Your task to perform on an android device: Go to sound settings Image 0: 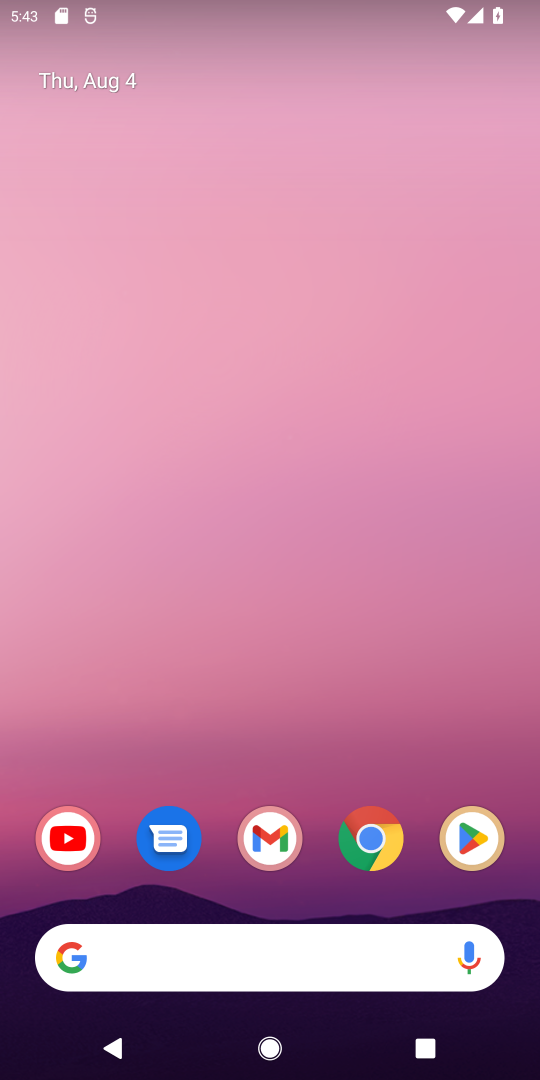
Step 0: press home button
Your task to perform on an android device: Go to sound settings Image 1: 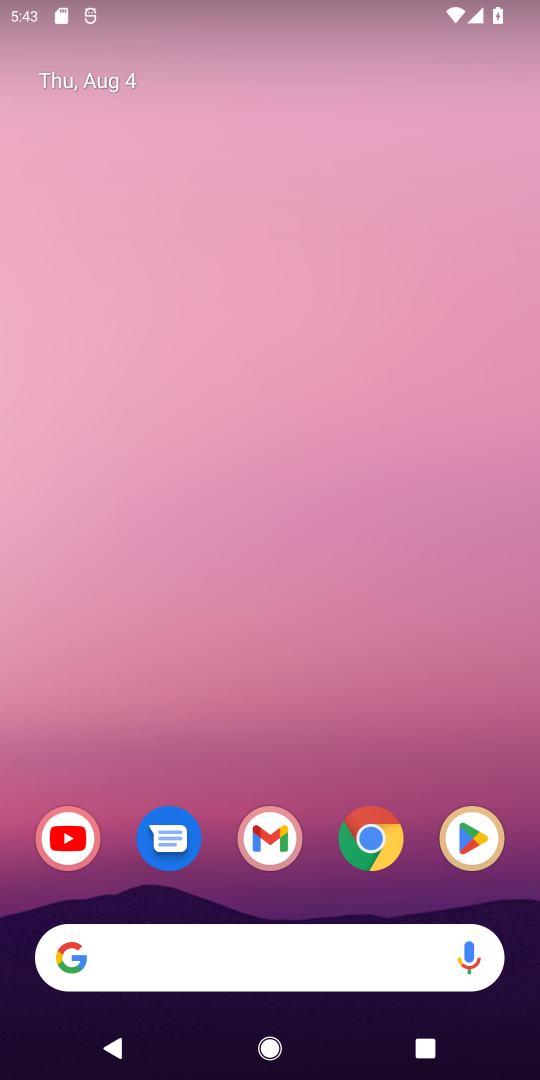
Step 1: drag from (308, 558) to (539, 761)
Your task to perform on an android device: Go to sound settings Image 2: 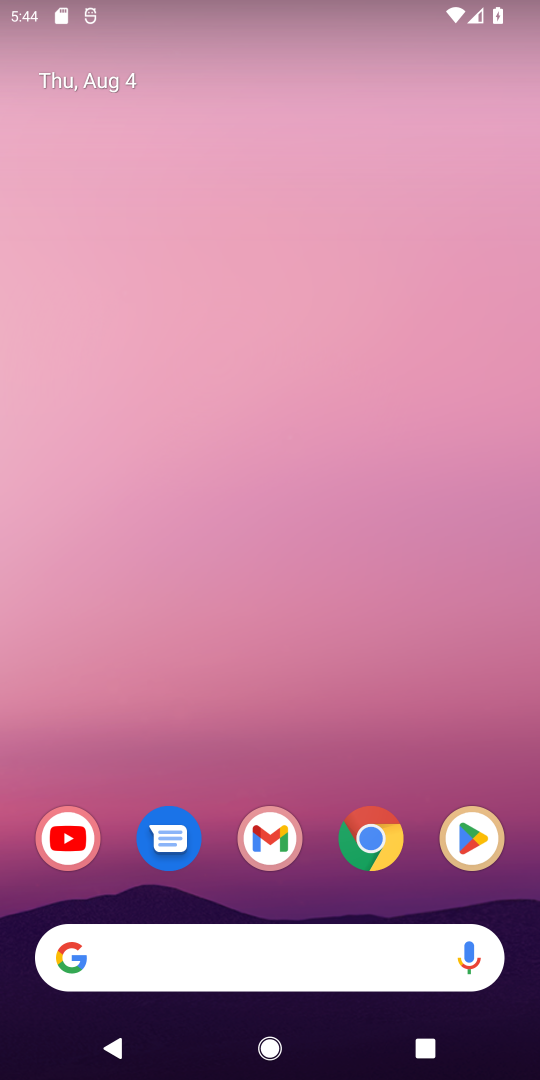
Step 2: click (481, 728)
Your task to perform on an android device: Go to sound settings Image 3: 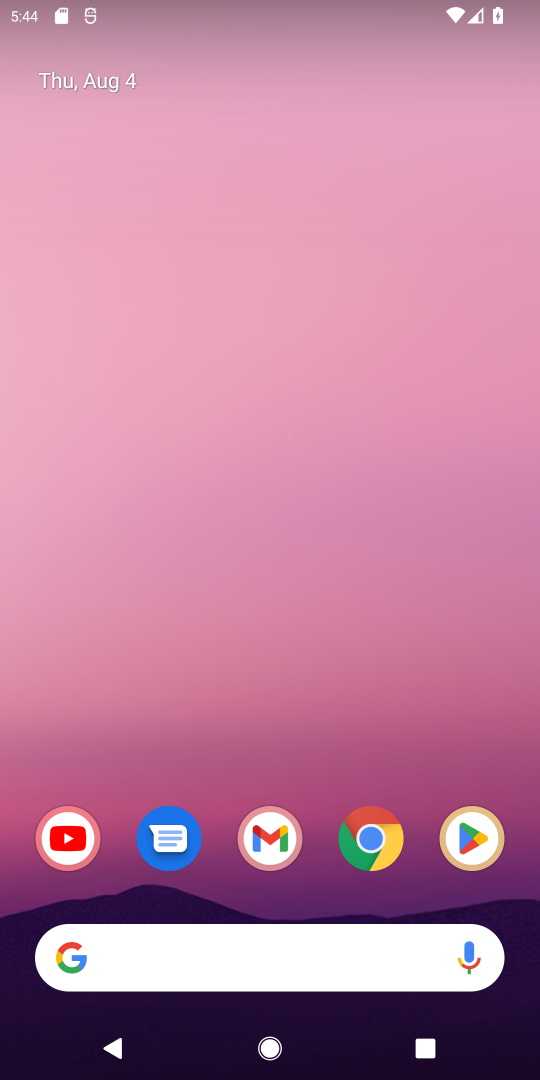
Step 3: drag from (424, 769) to (379, 17)
Your task to perform on an android device: Go to sound settings Image 4: 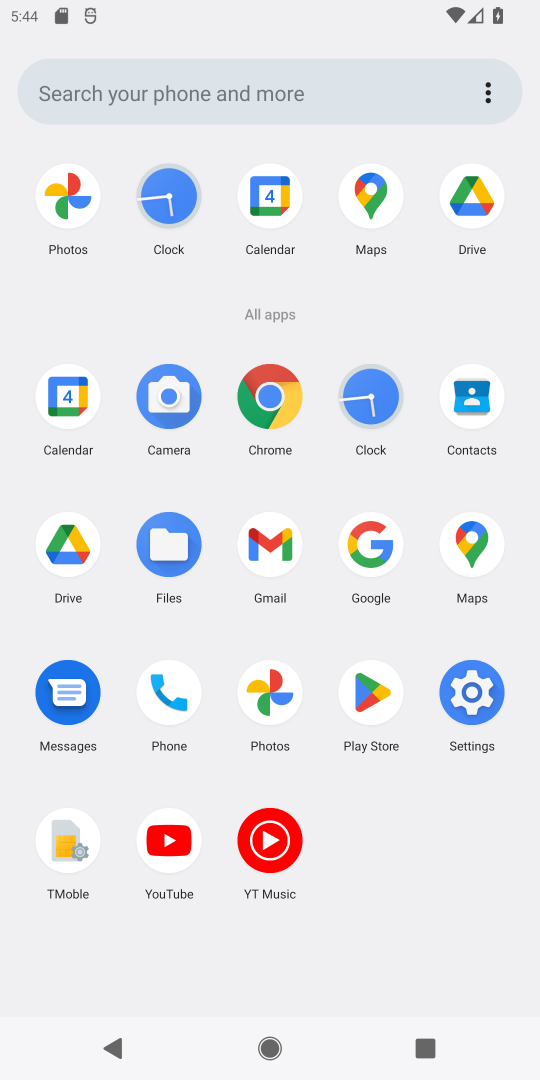
Step 4: click (478, 704)
Your task to perform on an android device: Go to sound settings Image 5: 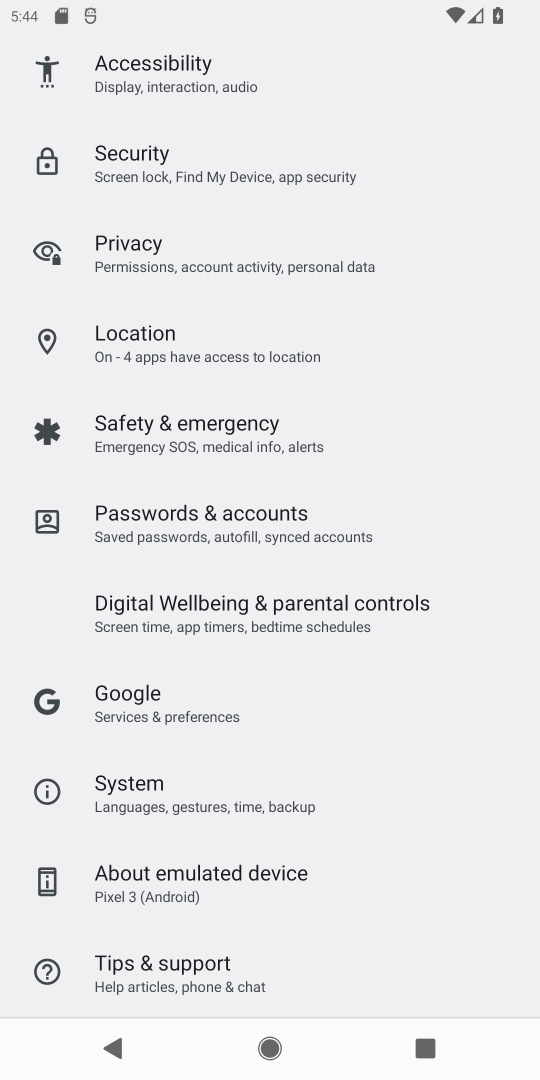
Step 5: drag from (252, 143) to (296, 694)
Your task to perform on an android device: Go to sound settings Image 6: 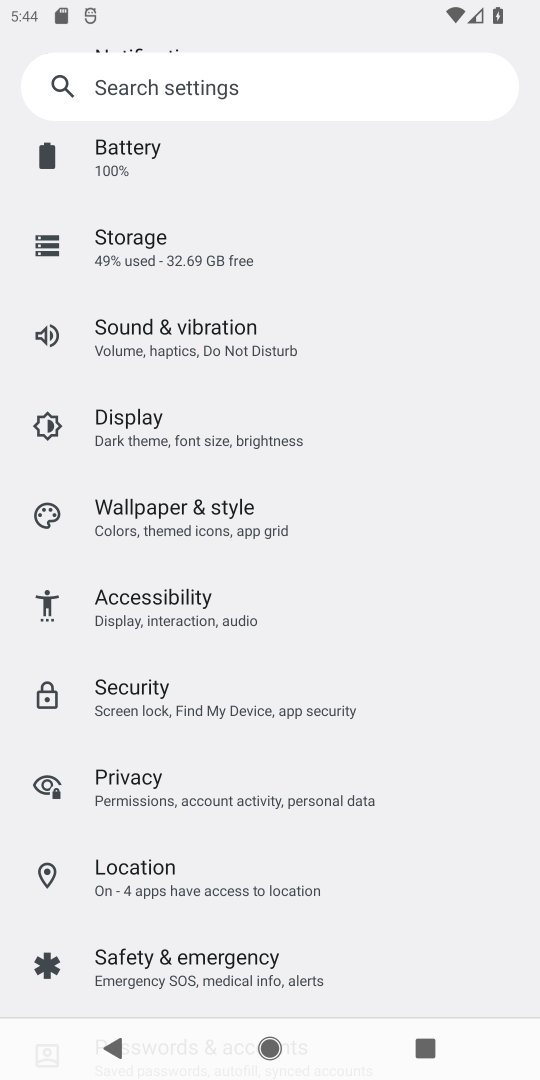
Step 6: drag from (304, 293) to (3, 1070)
Your task to perform on an android device: Go to sound settings Image 7: 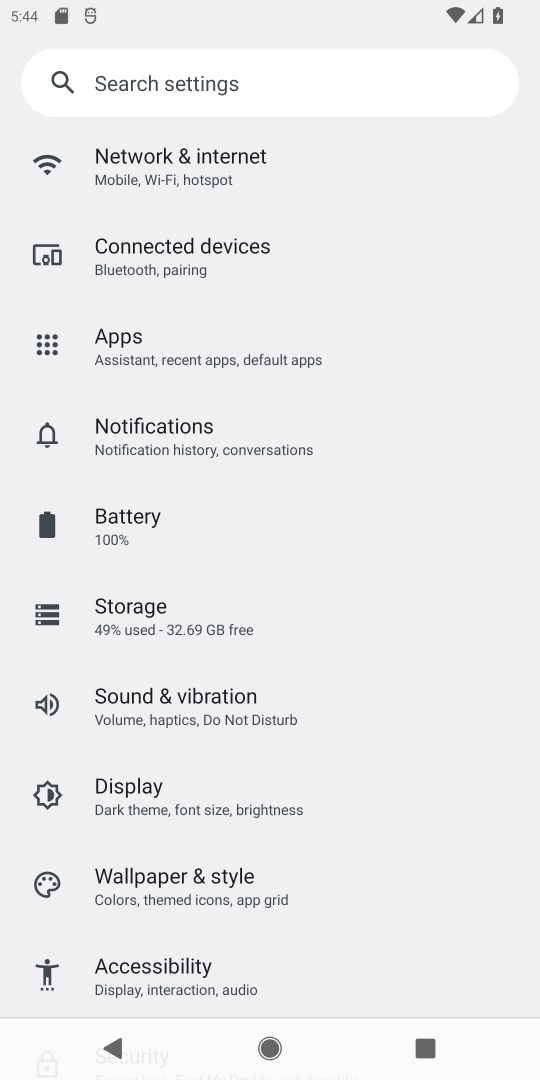
Step 7: drag from (212, 424) to (472, 832)
Your task to perform on an android device: Go to sound settings Image 8: 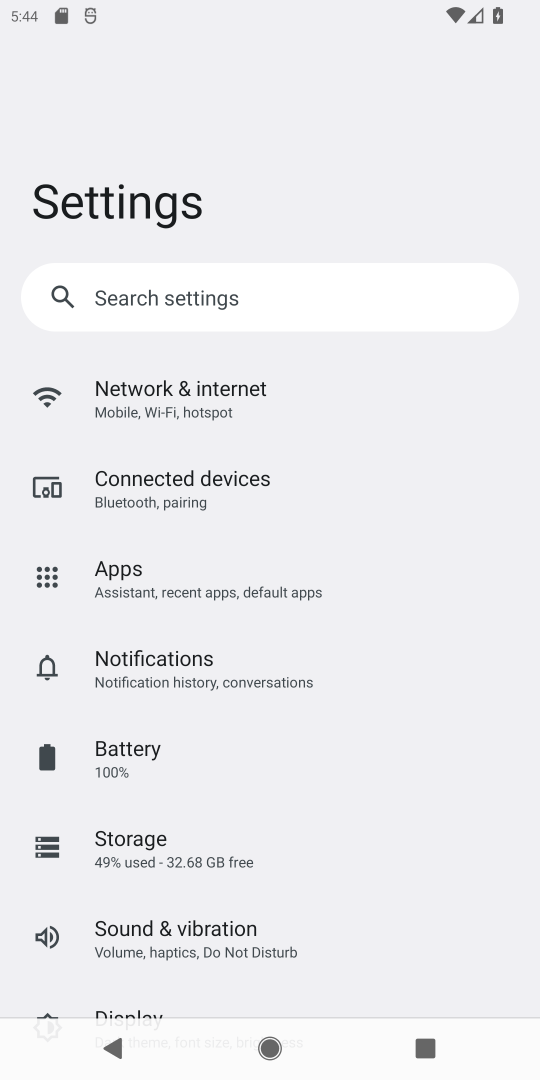
Step 8: click (82, 952)
Your task to perform on an android device: Go to sound settings Image 9: 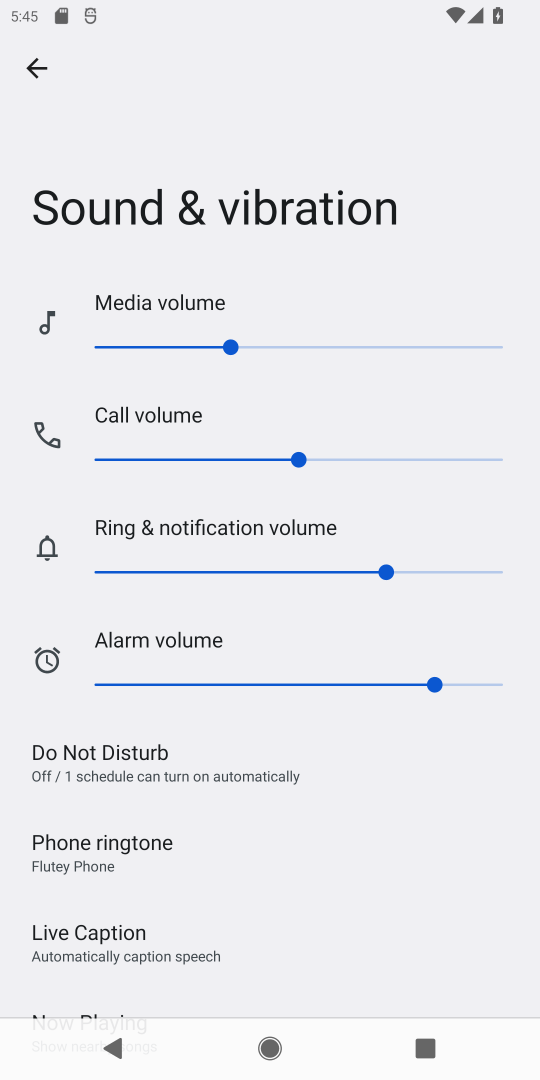
Step 9: task complete